Your task to perform on an android device: Open Google Maps and go to "Timeline" Image 0: 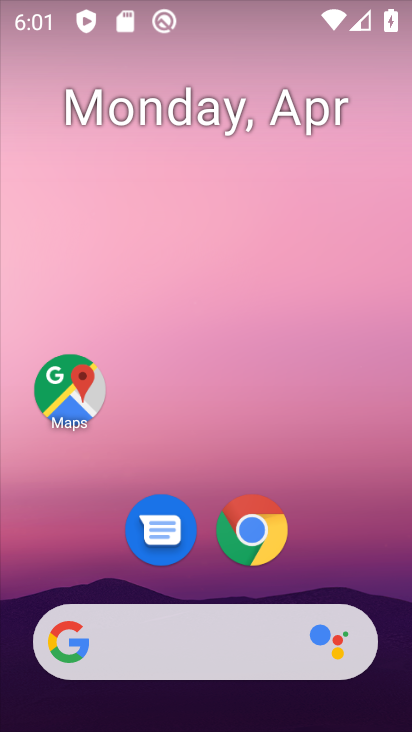
Step 0: drag from (222, 548) to (279, 2)
Your task to perform on an android device: Open Google Maps and go to "Timeline" Image 1: 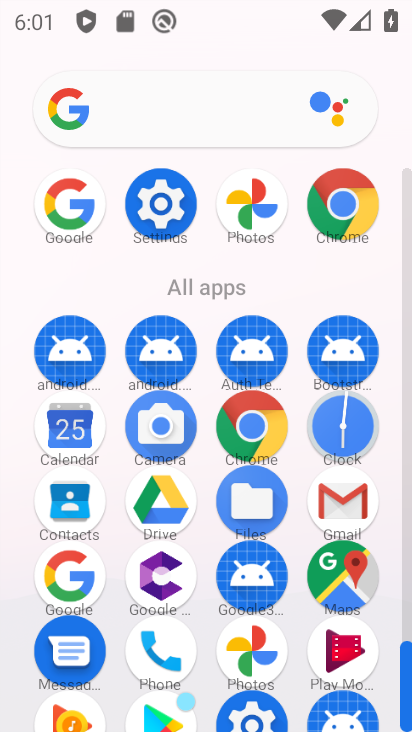
Step 1: click (339, 579)
Your task to perform on an android device: Open Google Maps and go to "Timeline" Image 2: 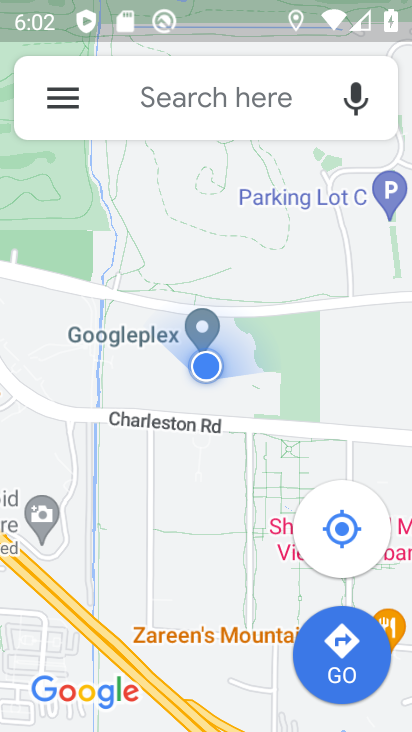
Step 2: click (63, 96)
Your task to perform on an android device: Open Google Maps and go to "Timeline" Image 3: 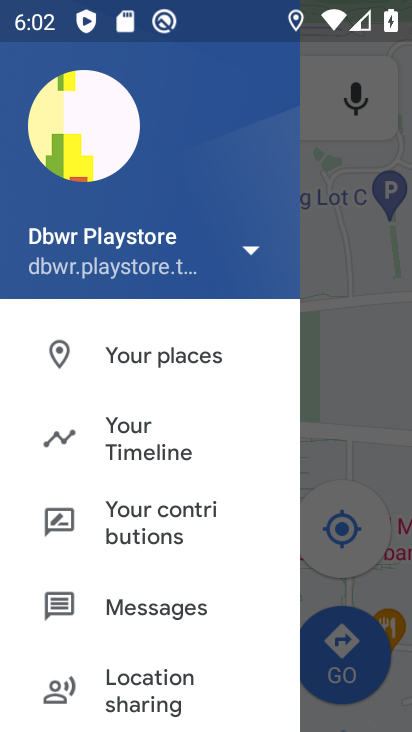
Step 3: click (182, 428)
Your task to perform on an android device: Open Google Maps and go to "Timeline" Image 4: 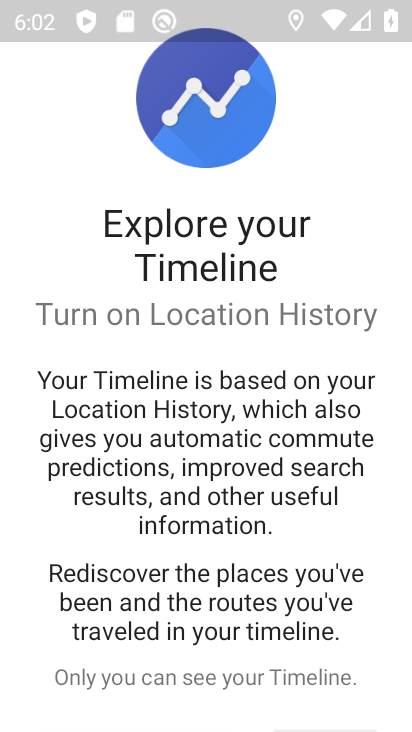
Step 4: drag from (194, 643) to (244, 309)
Your task to perform on an android device: Open Google Maps and go to "Timeline" Image 5: 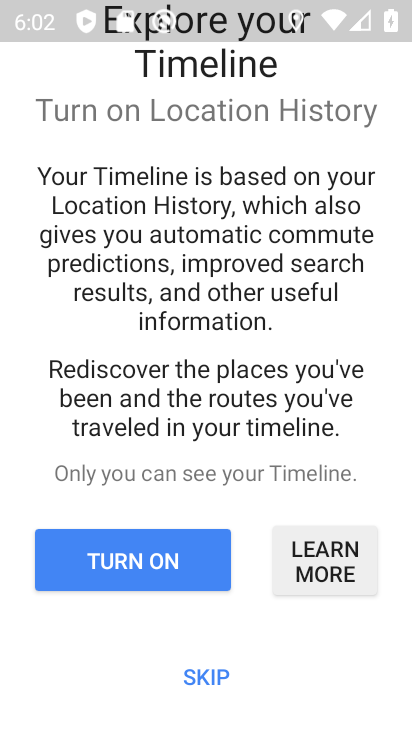
Step 5: click (146, 568)
Your task to perform on an android device: Open Google Maps and go to "Timeline" Image 6: 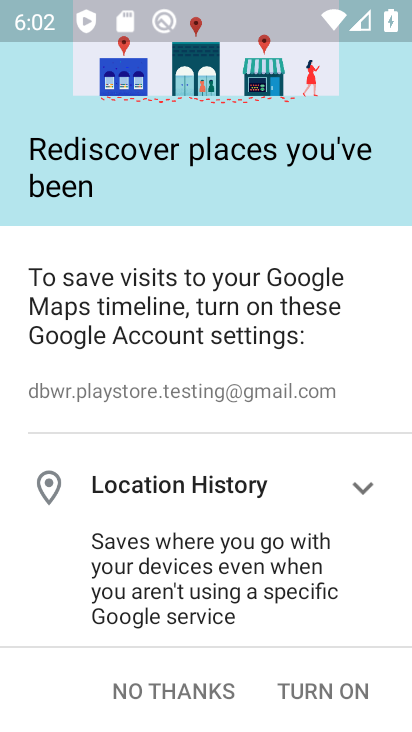
Step 6: click (328, 692)
Your task to perform on an android device: Open Google Maps and go to "Timeline" Image 7: 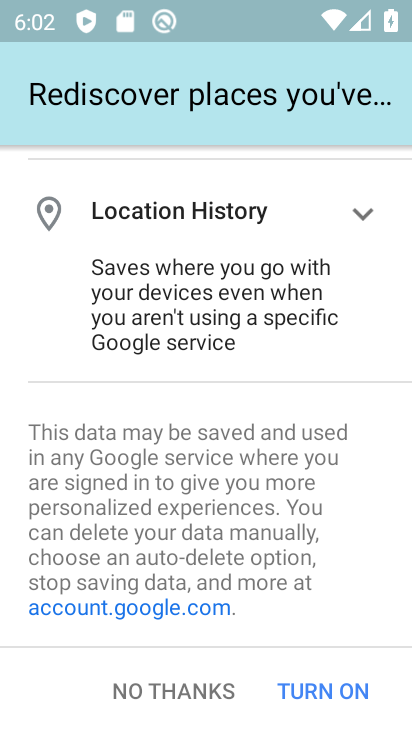
Step 7: drag from (266, 614) to (271, 247)
Your task to perform on an android device: Open Google Maps and go to "Timeline" Image 8: 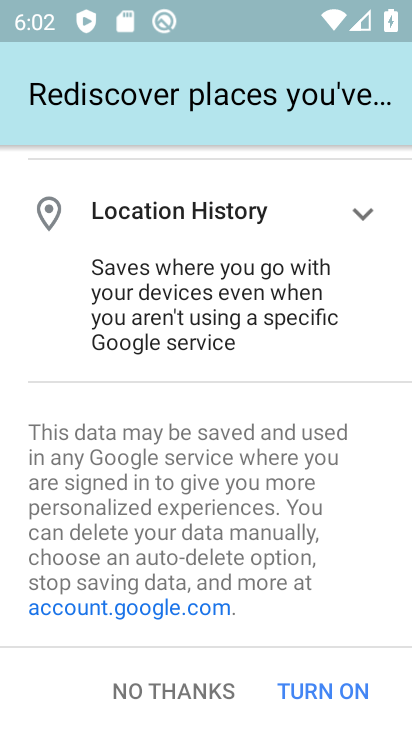
Step 8: click (311, 700)
Your task to perform on an android device: Open Google Maps and go to "Timeline" Image 9: 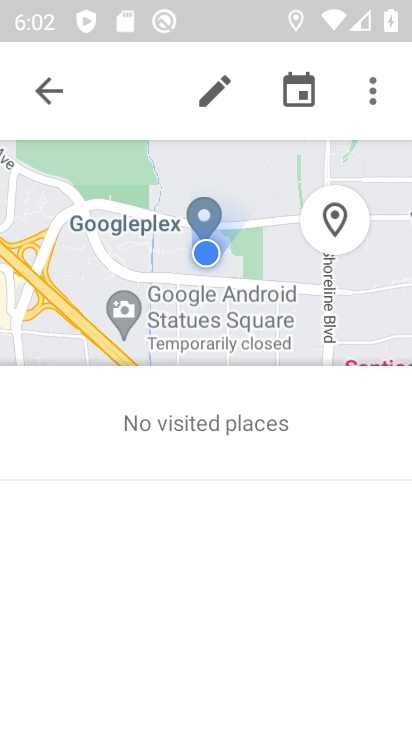
Step 9: task complete